Your task to perform on an android device: Show me the alarms in the clock app Image 0: 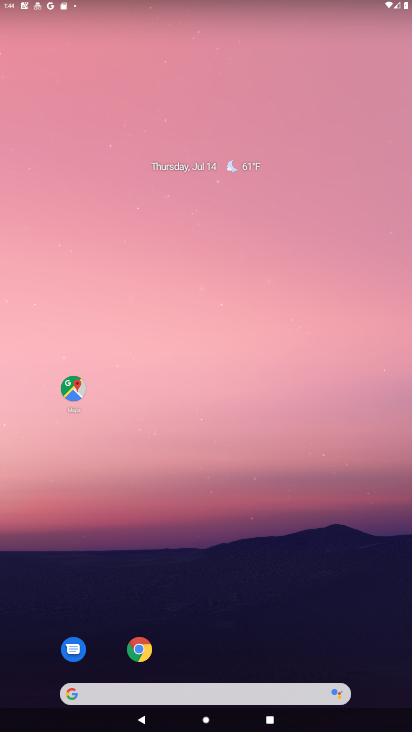
Step 0: drag from (334, 364) to (362, 27)
Your task to perform on an android device: Show me the alarms in the clock app Image 1: 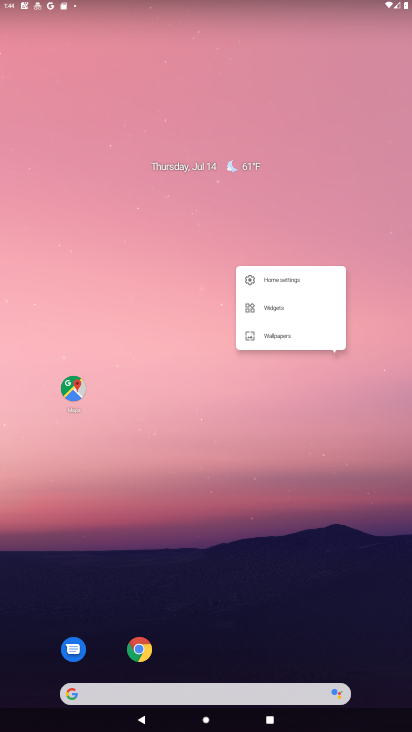
Step 1: drag from (323, 201) to (286, 7)
Your task to perform on an android device: Show me the alarms in the clock app Image 2: 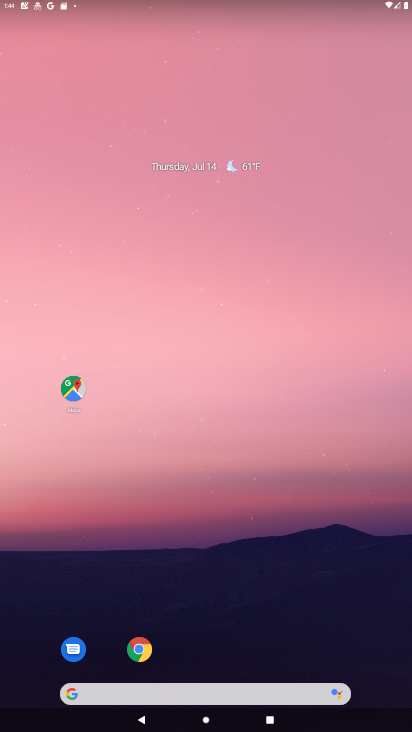
Step 2: click (375, 475)
Your task to perform on an android device: Show me the alarms in the clock app Image 3: 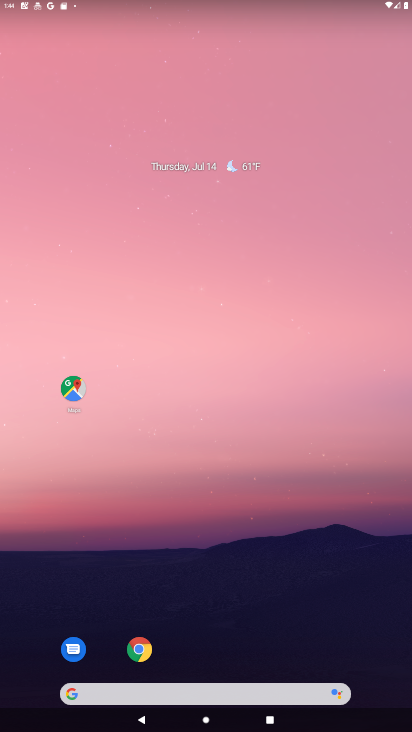
Step 3: drag from (251, 569) to (122, 4)
Your task to perform on an android device: Show me the alarms in the clock app Image 4: 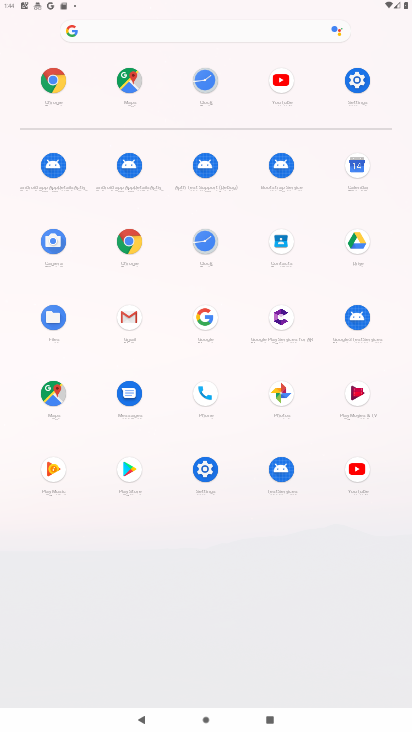
Step 4: click (199, 250)
Your task to perform on an android device: Show me the alarms in the clock app Image 5: 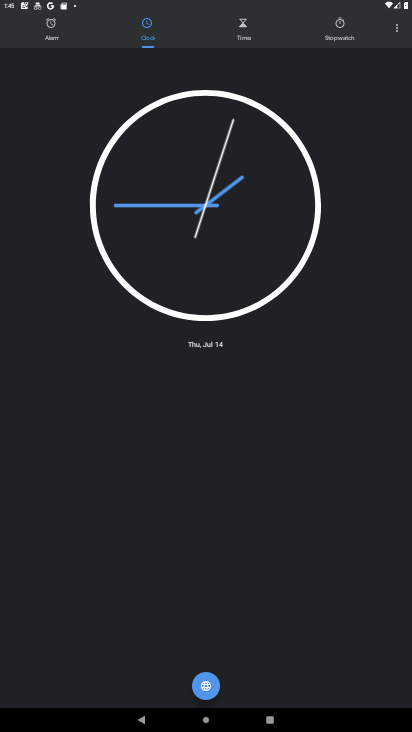
Step 5: click (43, 32)
Your task to perform on an android device: Show me the alarms in the clock app Image 6: 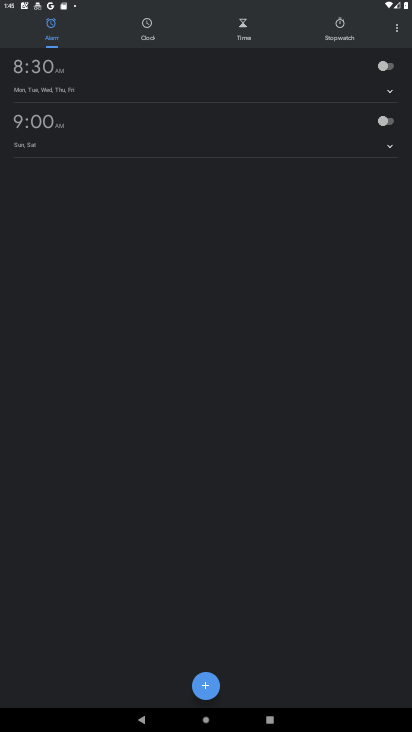
Step 6: task complete